Your task to perform on an android device: Search for Italian restaurants on Maps Image 0: 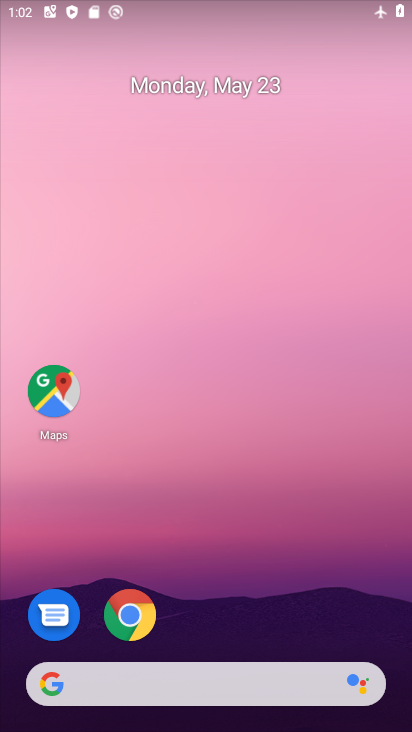
Step 0: drag from (210, 728) to (188, 108)
Your task to perform on an android device: Search for Italian restaurants on Maps Image 1: 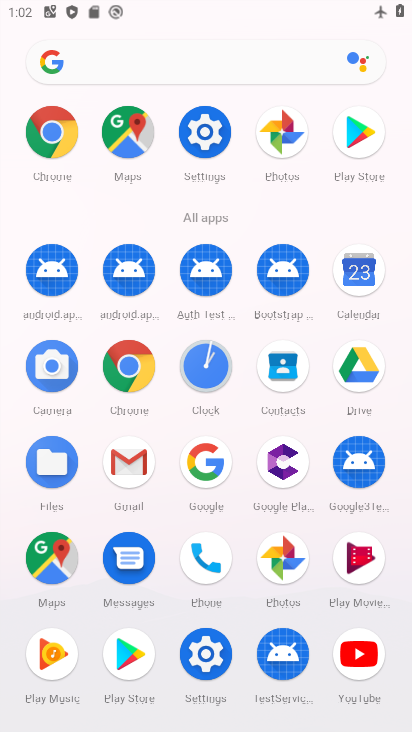
Step 1: click (47, 562)
Your task to perform on an android device: Search for Italian restaurants on Maps Image 2: 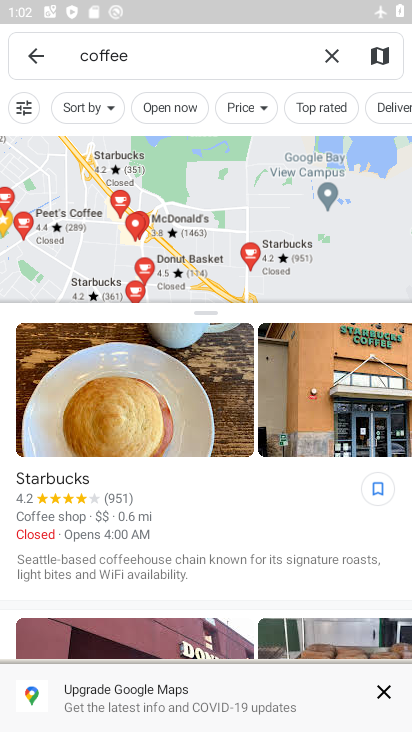
Step 2: click (333, 46)
Your task to perform on an android device: Search for Italian restaurants on Maps Image 3: 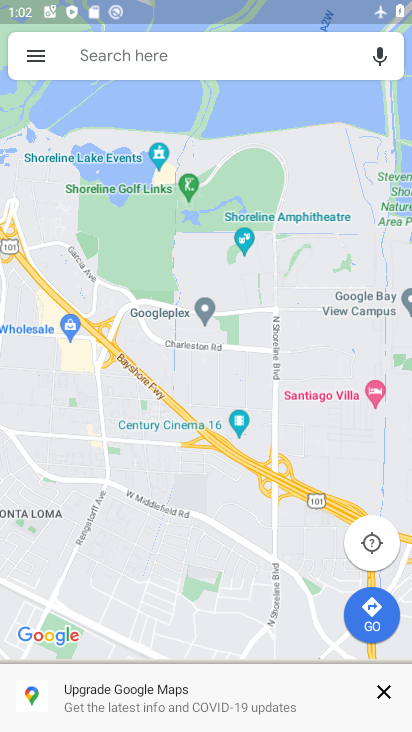
Step 3: click (204, 59)
Your task to perform on an android device: Search for Italian restaurants on Maps Image 4: 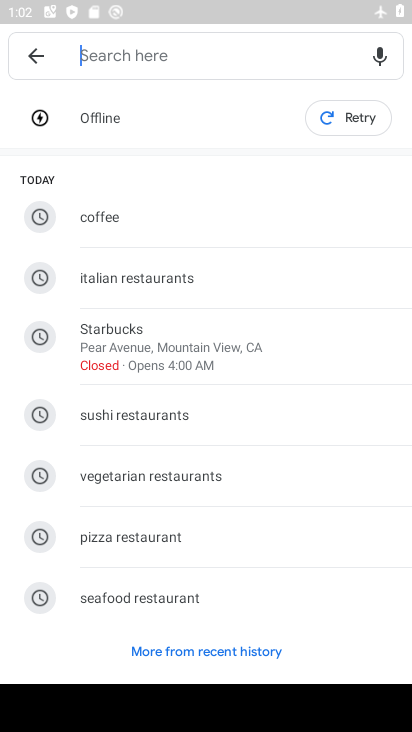
Step 4: type "italian restaurants"
Your task to perform on an android device: Search for Italian restaurants on Maps Image 5: 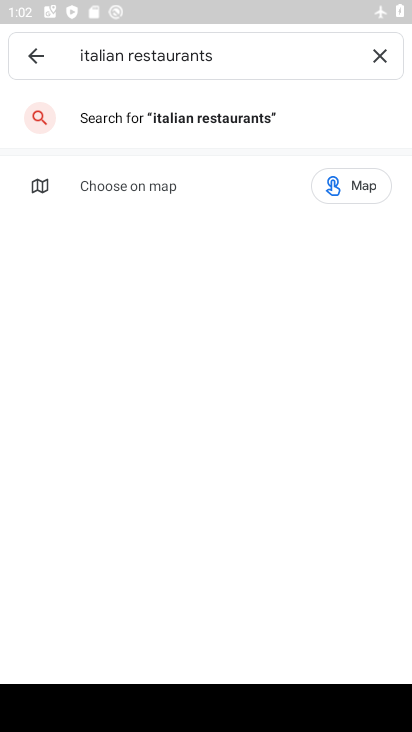
Step 5: click (179, 119)
Your task to perform on an android device: Search for Italian restaurants on Maps Image 6: 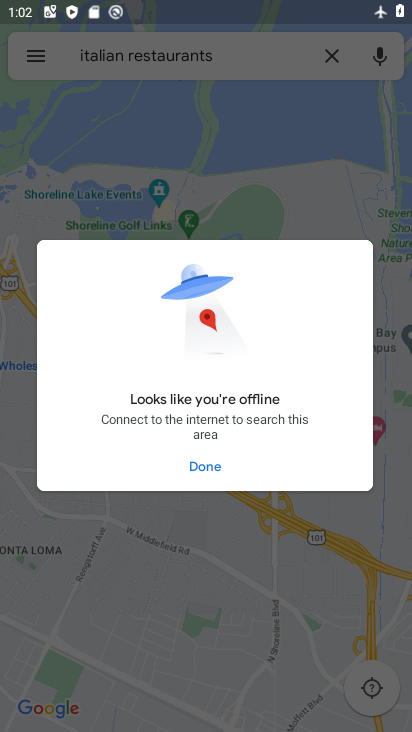
Step 6: task complete